Your task to perform on an android device: turn on airplane mode Image 0: 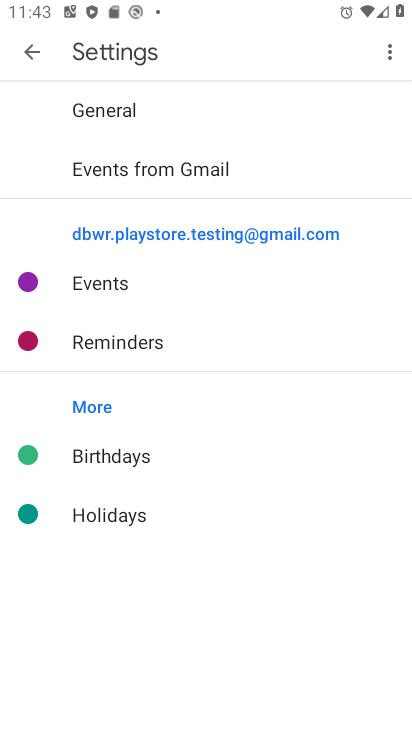
Step 0: press home button
Your task to perform on an android device: turn on airplane mode Image 1: 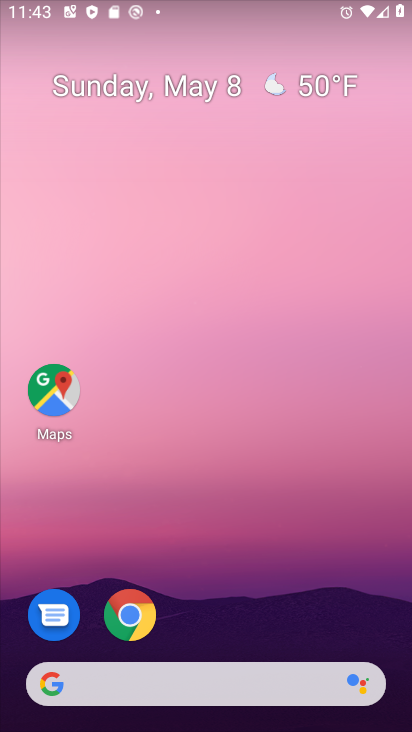
Step 1: drag from (278, 704) to (363, 195)
Your task to perform on an android device: turn on airplane mode Image 2: 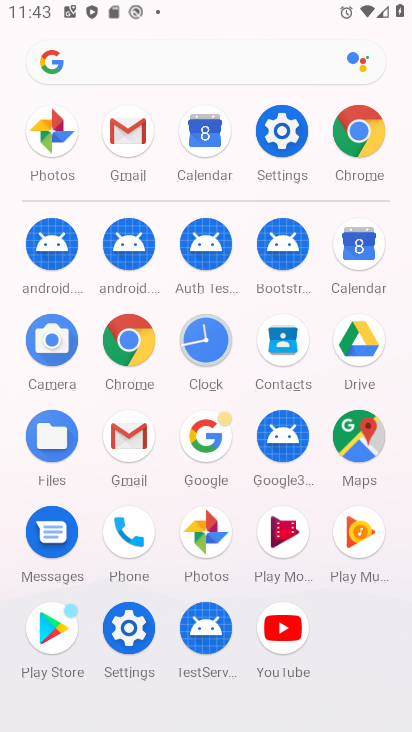
Step 2: click (276, 153)
Your task to perform on an android device: turn on airplane mode Image 3: 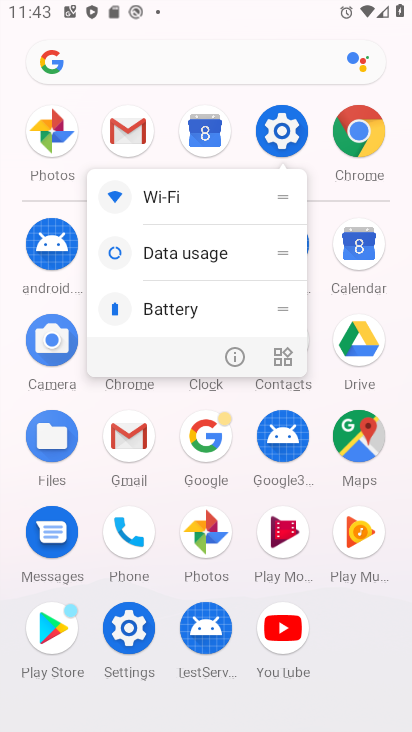
Step 3: click (313, 143)
Your task to perform on an android device: turn on airplane mode Image 4: 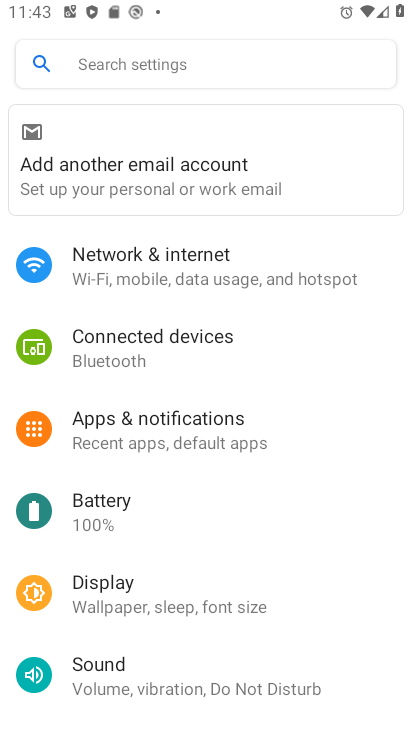
Step 4: click (200, 260)
Your task to perform on an android device: turn on airplane mode Image 5: 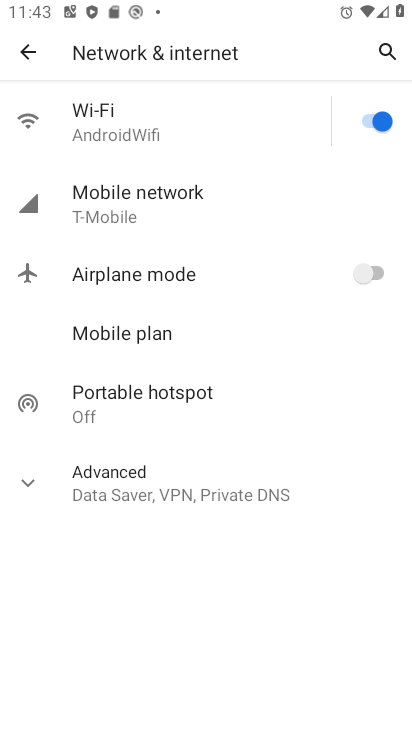
Step 5: click (229, 281)
Your task to perform on an android device: turn on airplane mode Image 6: 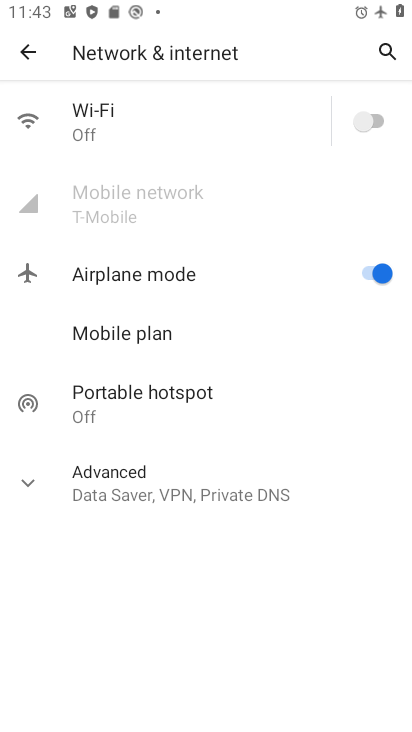
Step 6: task complete